Your task to perform on an android device: open a new tab in the chrome app Image 0: 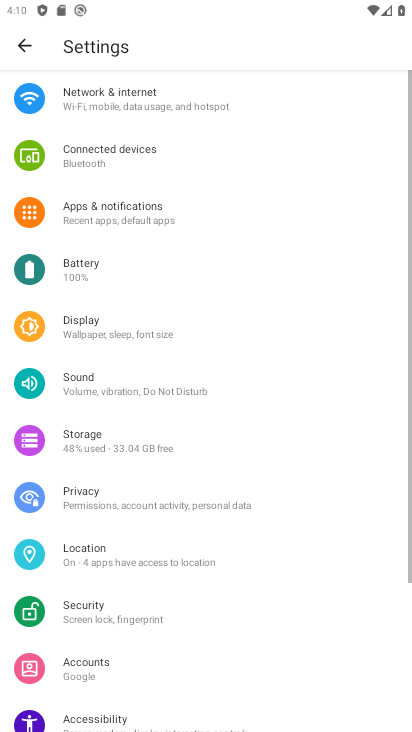
Step 0: drag from (144, 659) to (223, 136)
Your task to perform on an android device: open a new tab in the chrome app Image 1: 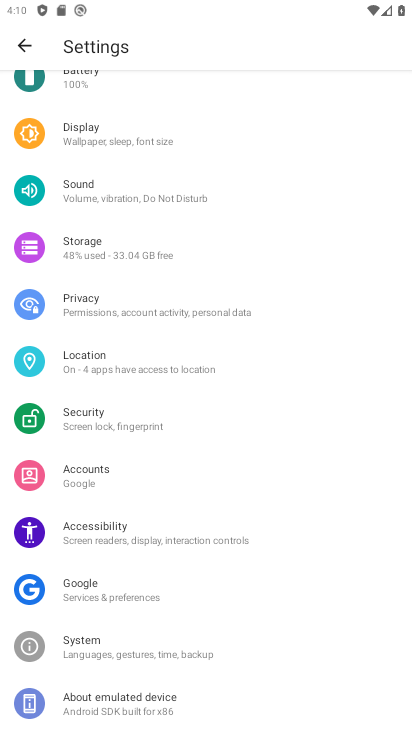
Step 1: press home button
Your task to perform on an android device: open a new tab in the chrome app Image 2: 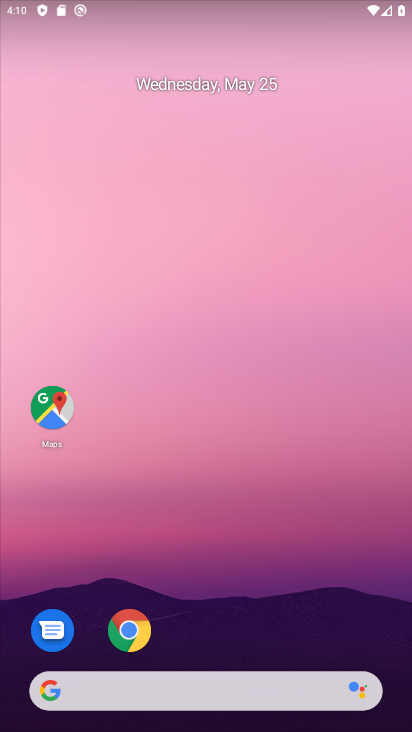
Step 2: click (122, 621)
Your task to perform on an android device: open a new tab in the chrome app Image 3: 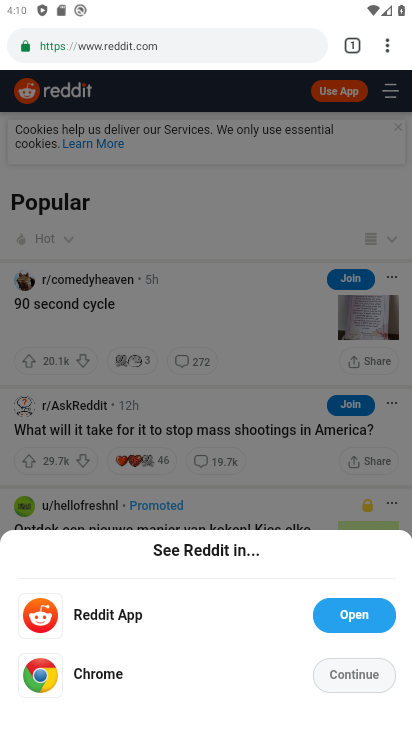
Step 3: task complete